Your task to perform on an android device: Open battery settings Image 0: 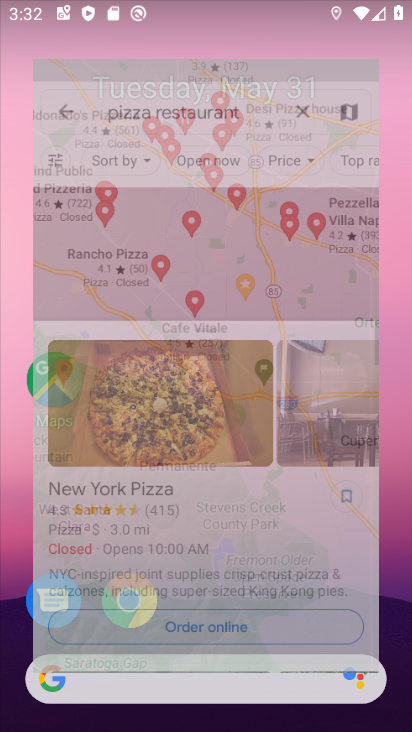
Step 0: press home button
Your task to perform on an android device: Open battery settings Image 1: 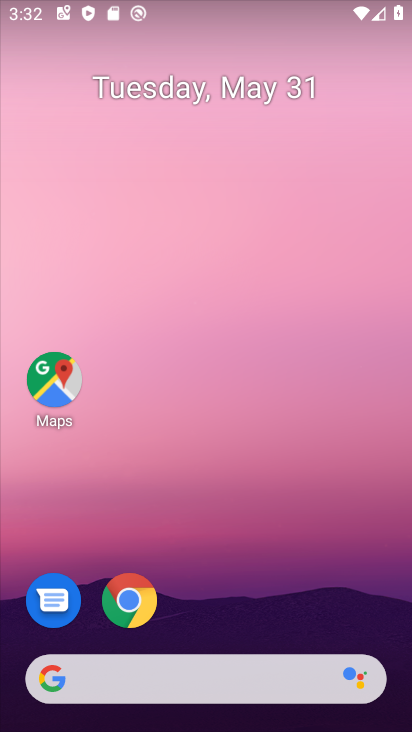
Step 1: drag from (224, 623) to (257, 218)
Your task to perform on an android device: Open battery settings Image 2: 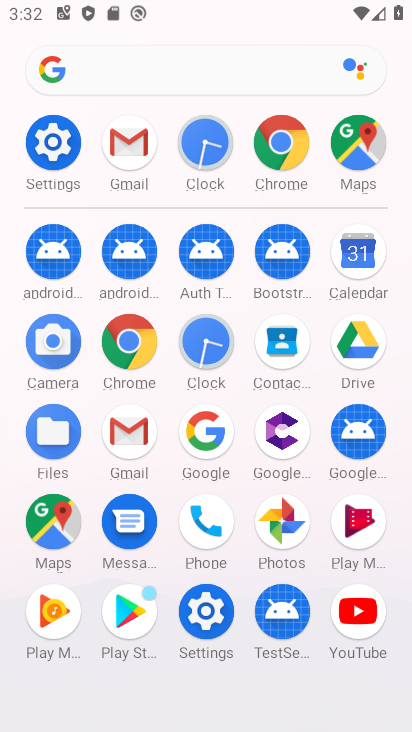
Step 2: click (51, 145)
Your task to perform on an android device: Open battery settings Image 3: 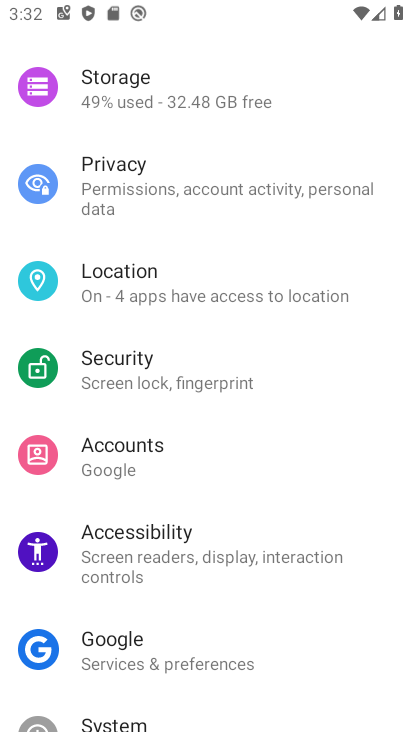
Step 3: drag from (159, 119) to (223, 613)
Your task to perform on an android device: Open battery settings Image 4: 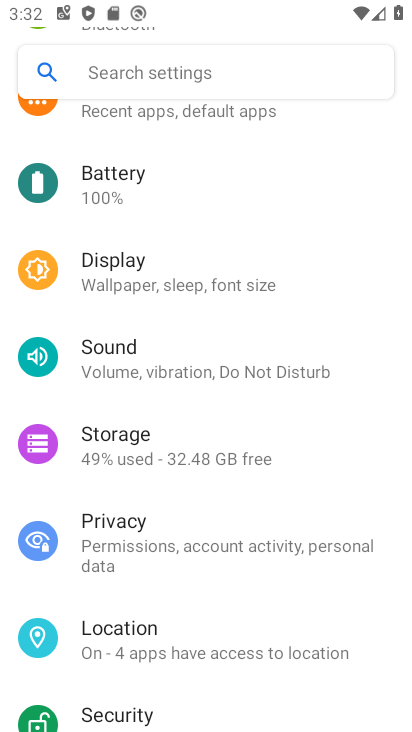
Step 4: click (146, 188)
Your task to perform on an android device: Open battery settings Image 5: 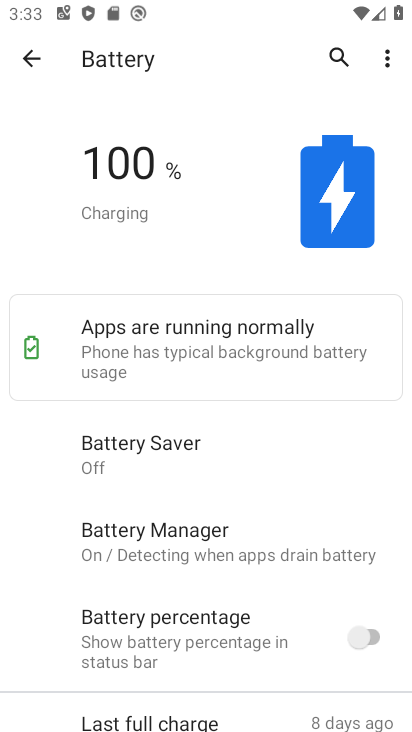
Step 5: task complete